Your task to perform on an android device: open wifi settings Image 0: 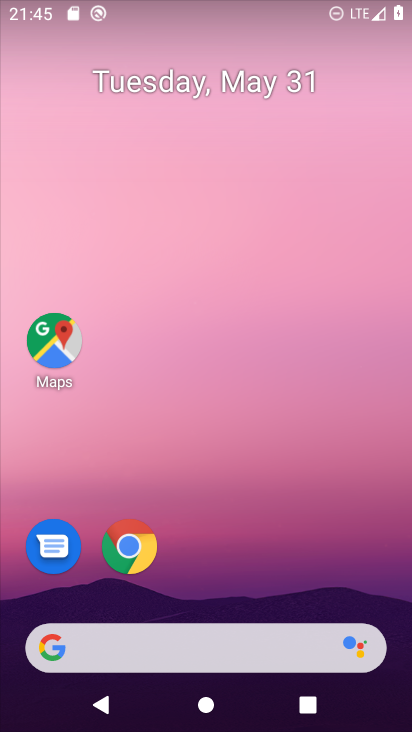
Step 0: drag from (383, 635) to (281, 67)
Your task to perform on an android device: open wifi settings Image 1: 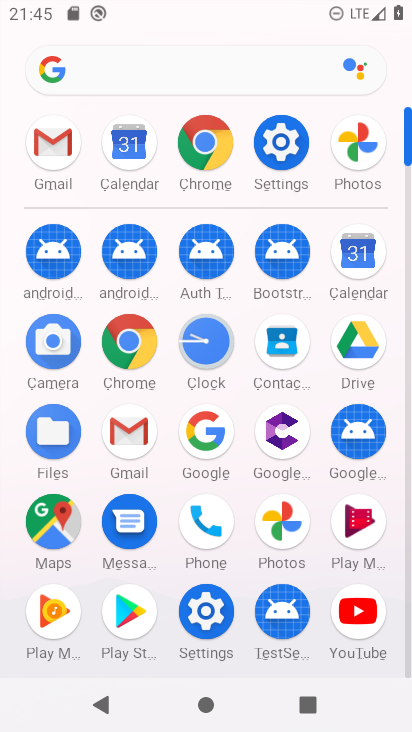
Step 1: click (260, 144)
Your task to perform on an android device: open wifi settings Image 2: 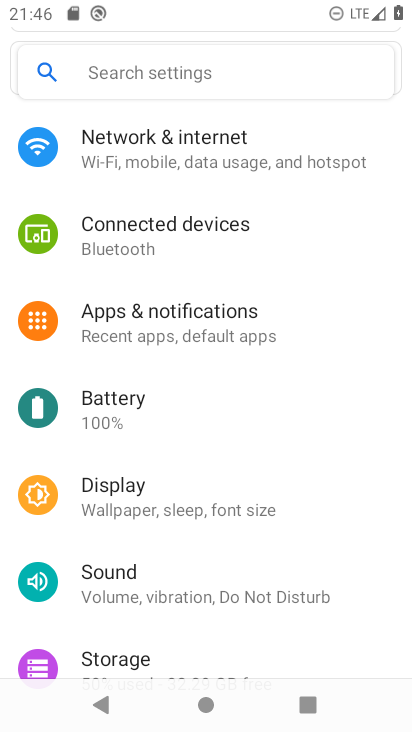
Step 2: click (193, 156)
Your task to perform on an android device: open wifi settings Image 3: 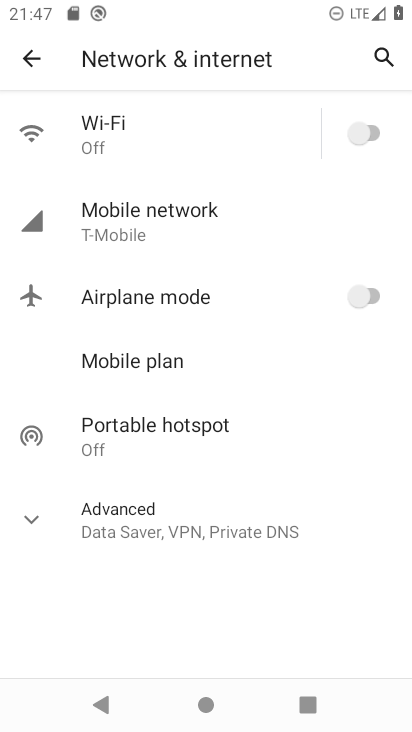
Step 3: click (192, 130)
Your task to perform on an android device: open wifi settings Image 4: 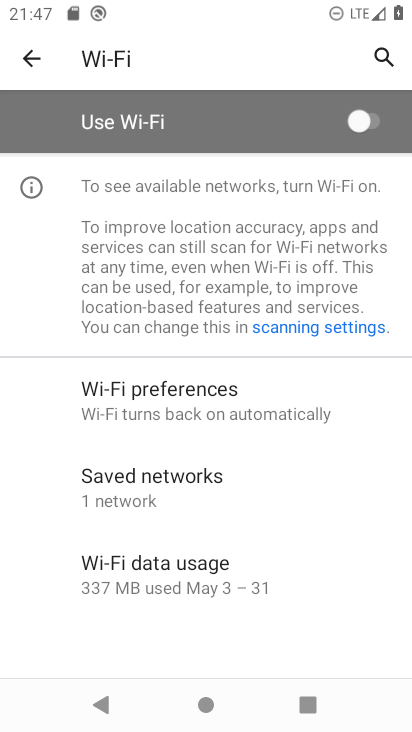
Step 4: task complete